Your task to perform on an android device: What's the weather going to be tomorrow? Image 0: 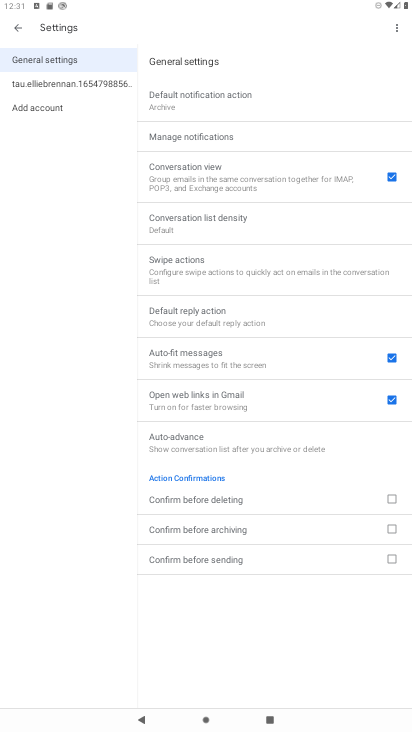
Step 0: press home button
Your task to perform on an android device: What's the weather going to be tomorrow? Image 1: 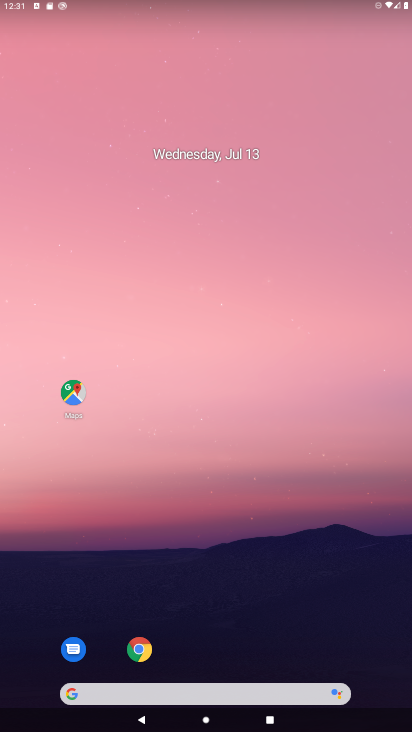
Step 1: task complete